Your task to perform on an android device: Empty the shopping cart on newegg. Add "macbook pro 13 inch" to the cart on newegg, then select checkout. Image 0: 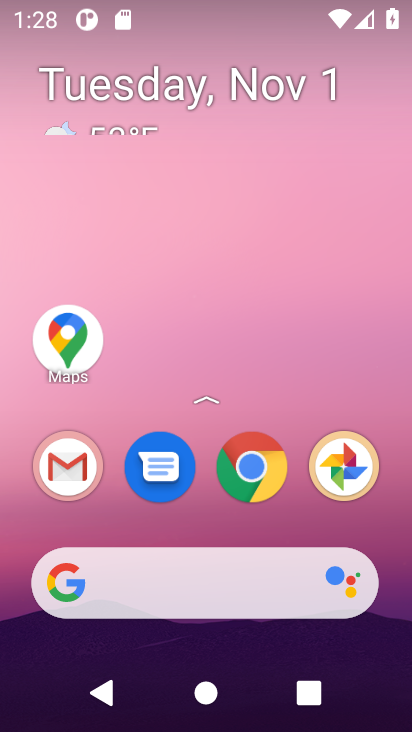
Step 0: click (251, 469)
Your task to perform on an android device: Empty the shopping cart on newegg. Add "macbook pro 13 inch" to the cart on newegg, then select checkout. Image 1: 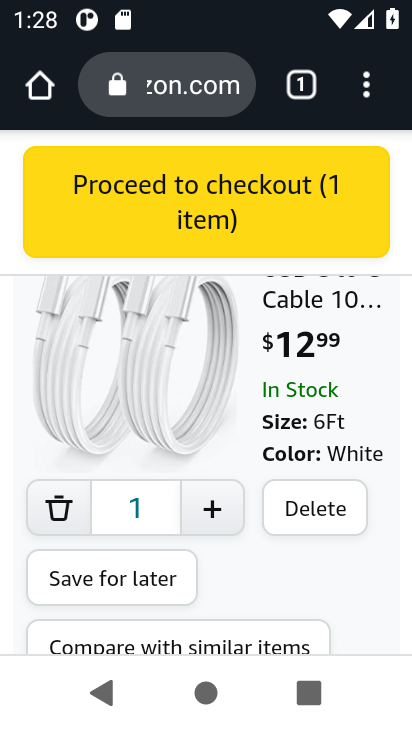
Step 1: click (195, 90)
Your task to perform on an android device: Empty the shopping cart on newegg. Add "macbook pro 13 inch" to the cart on newegg, then select checkout. Image 2: 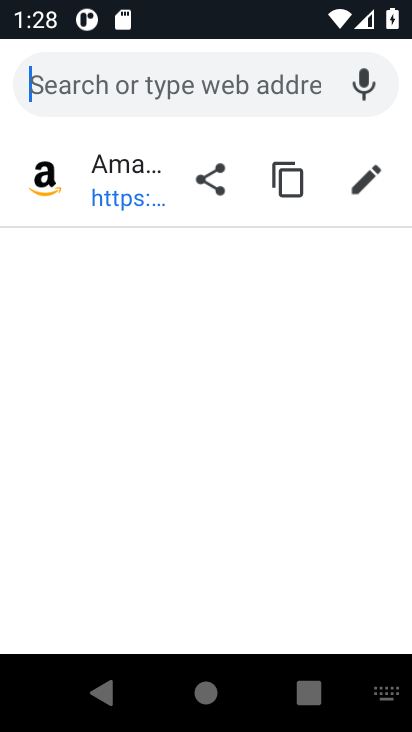
Step 2: type "newegg"
Your task to perform on an android device: Empty the shopping cart on newegg. Add "macbook pro 13 inch" to the cart on newegg, then select checkout. Image 3: 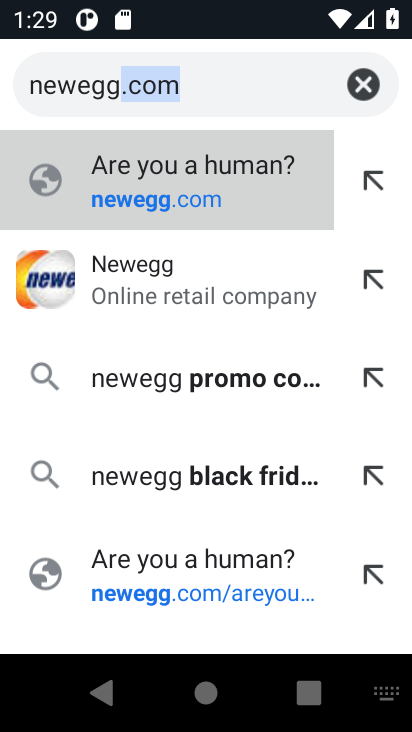
Step 3: click (222, 299)
Your task to perform on an android device: Empty the shopping cart on newegg. Add "macbook pro 13 inch" to the cart on newegg, then select checkout. Image 4: 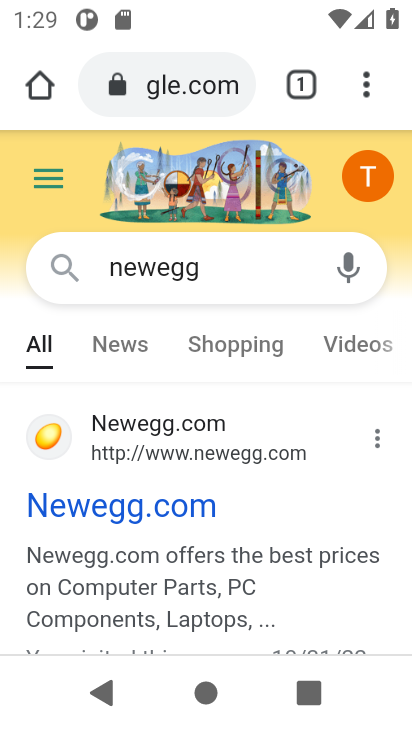
Step 4: click (156, 506)
Your task to perform on an android device: Empty the shopping cart on newegg. Add "macbook pro 13 inch" to the cart on newegg, then select checkout. Image 5: 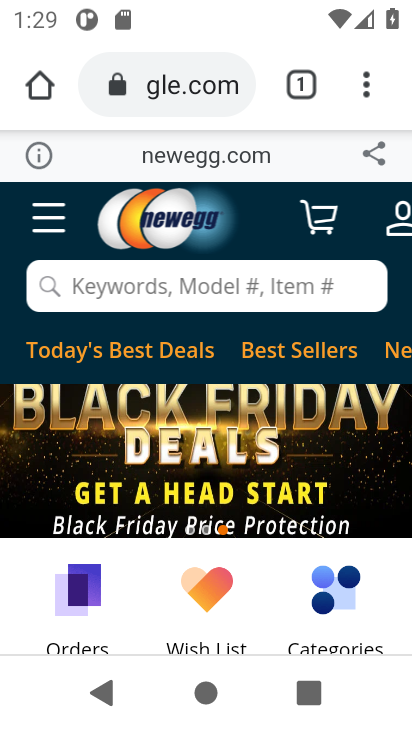
Step 5: click (321, 219)
Your task to perform on an android device: Empty the shopping cart on newegg. Add "macbook pro 13 inch" to the cart on newegg, then select checkout. Image 6: 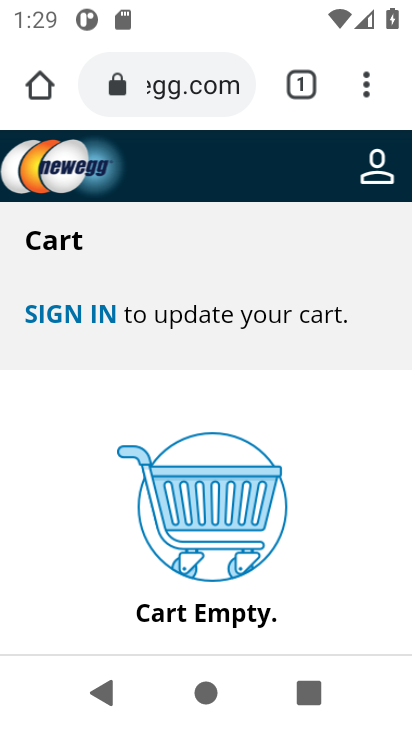
Step 6: press back button
Your task to perform on an android device: Empty the shopping cart on newegg. Add "macbook pro 13 inch" to the cart on newegg, then select checkout. Image 7: 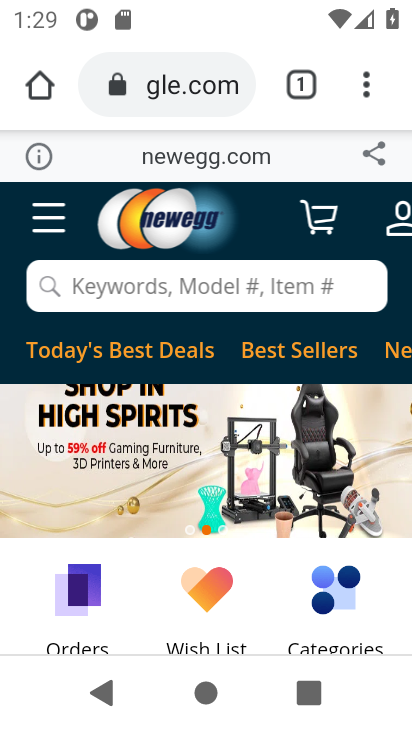
Step 7: click (215, 273)
Your task to perform on an android device: Empty the shopping cart on newegg. Add "macbook pro 13 inch" to the cart on newegg, then select checkout. Image 8: 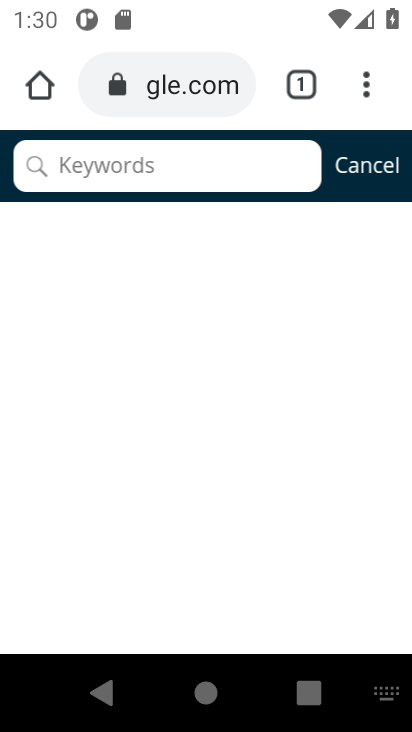
Step 8: type "macbook pro 13 inch"
Your task to perform on an android device: Empty the shopping cart on newegg. Add "macbook pro 13 inch" to the cart on newegg, then select checkout. Image 9: 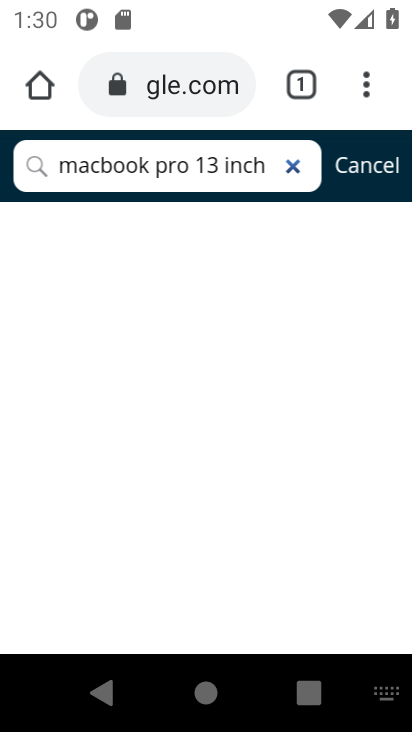
Step 9: click (32, 164)
Your task to perform on an android device: Empty the shopping cart on newegg. Add "macbook pro 13 inch" to the cart on newegg, then select checkout. Image 10: 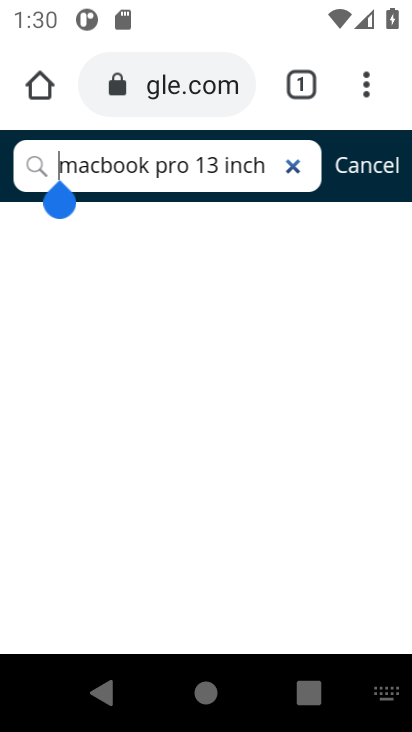
Step 10: task complete